Your task to perform on an android device: Go to network settings Image 0: 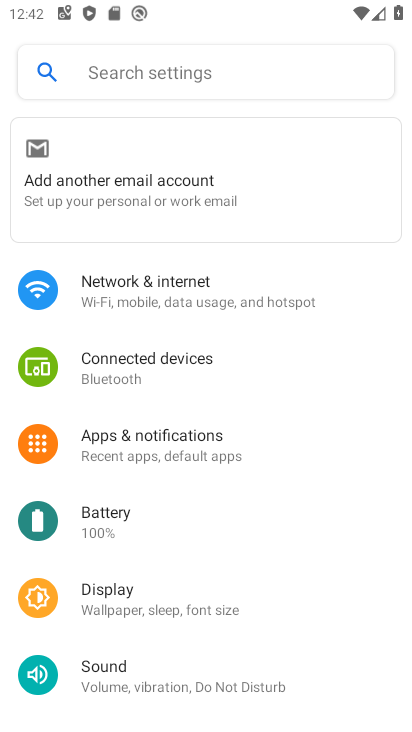
Step 0: click (228, 306)
Your task to perform on an android device: Go to network settings Image 1: 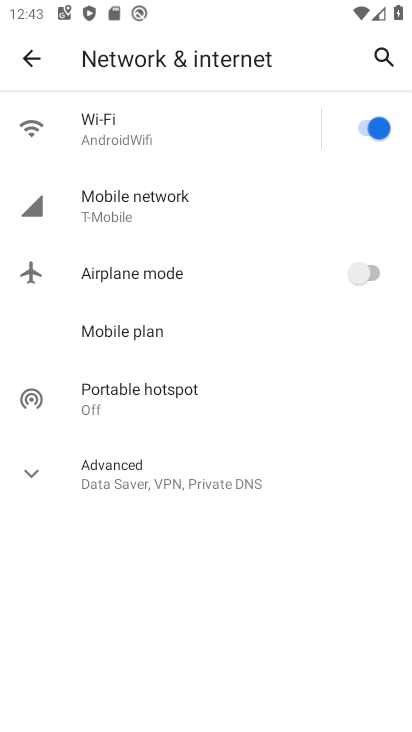
Step 1: click (197, 191)
Your task to perform on an android device: Go to network settings Image 2: 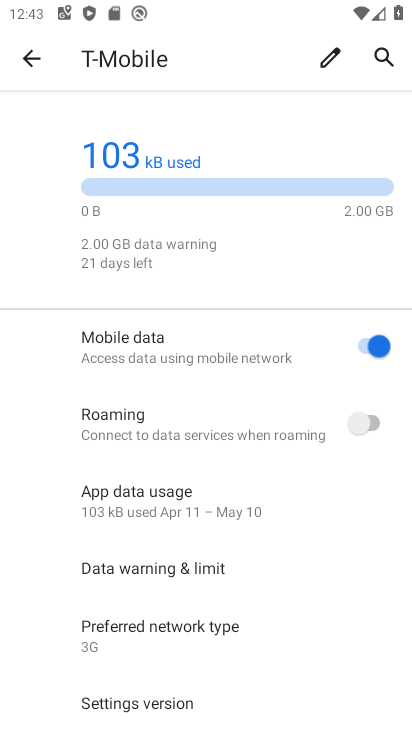
Step 2: task complete